Your task to perform on an android device: move an email to a new category in the gmail app Image 0: 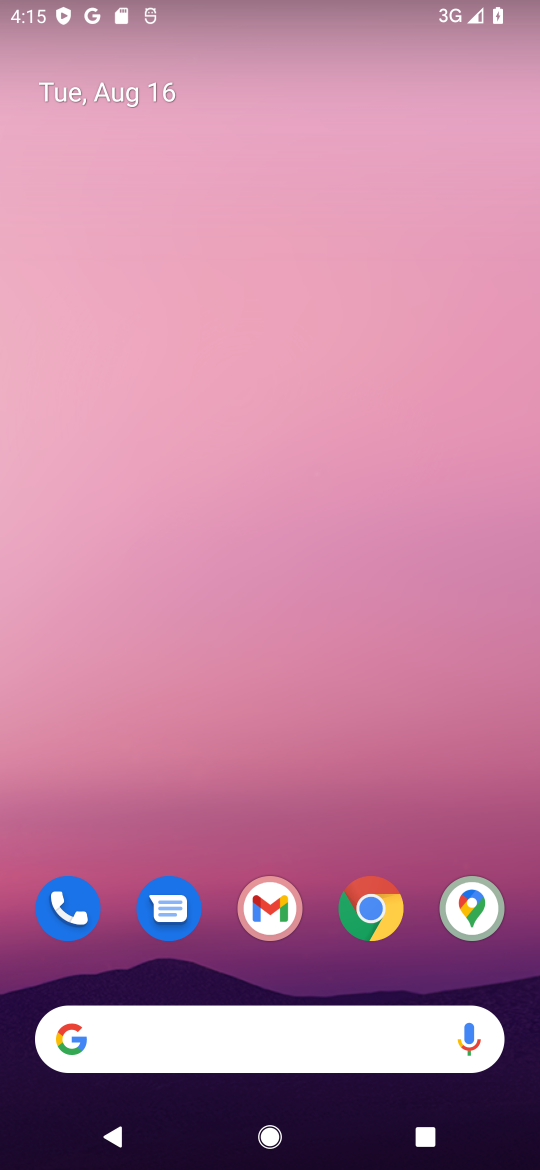
Step 0: click (268, 895)
Your task to perform on an android device: move an email to a new category in the gmail app Image 1: 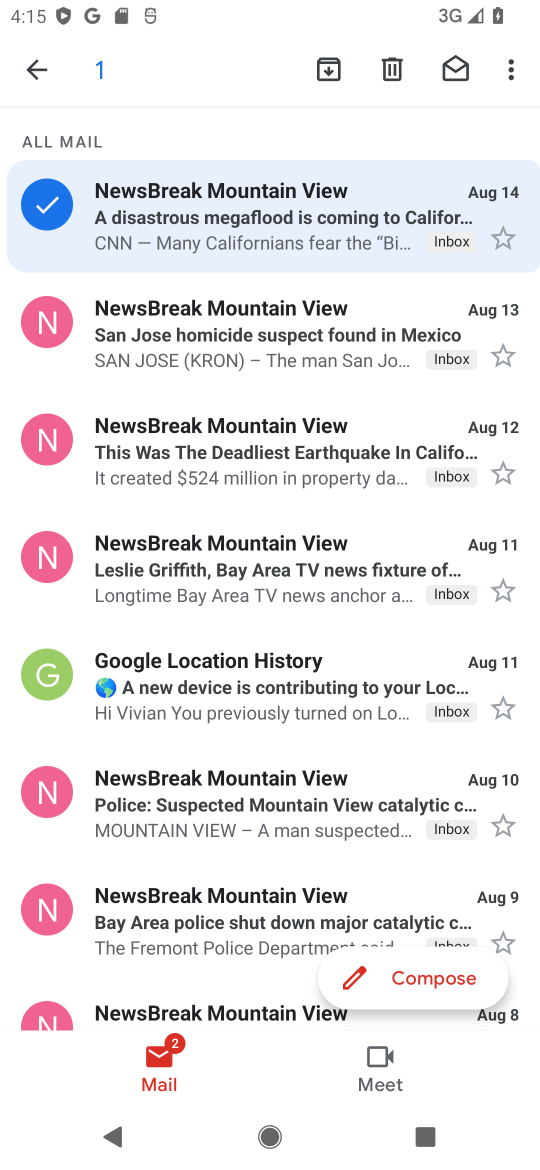
Step 1: click (515, 67)
Your task to perform on an android device: move an email to a new category in the gmail app Image 2: 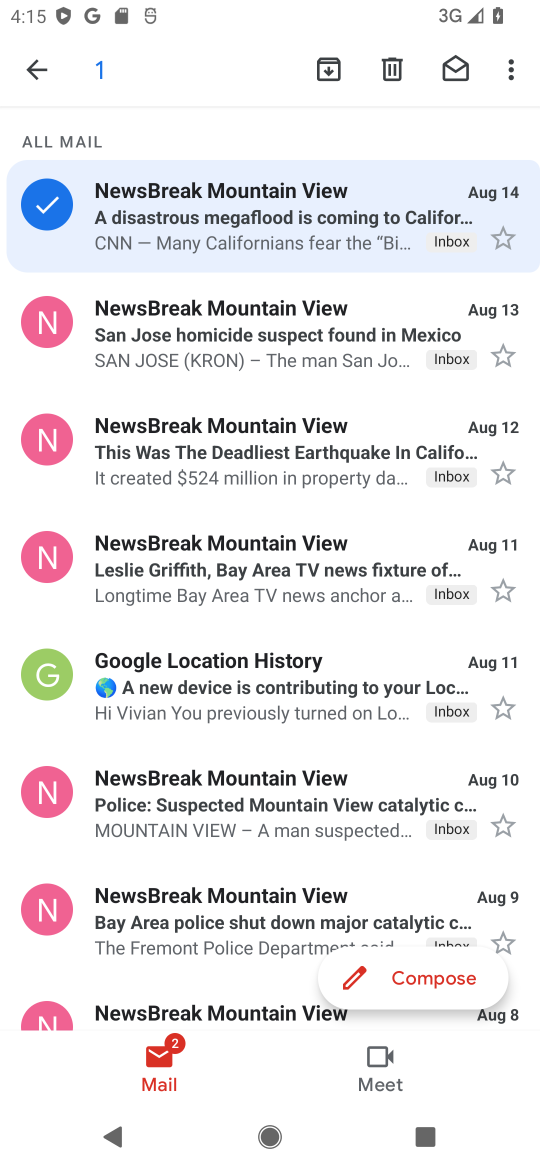
Step 2: click (64, 202)
Your task to perform on an android device: move an email to a new category in the gmail app Image 3: 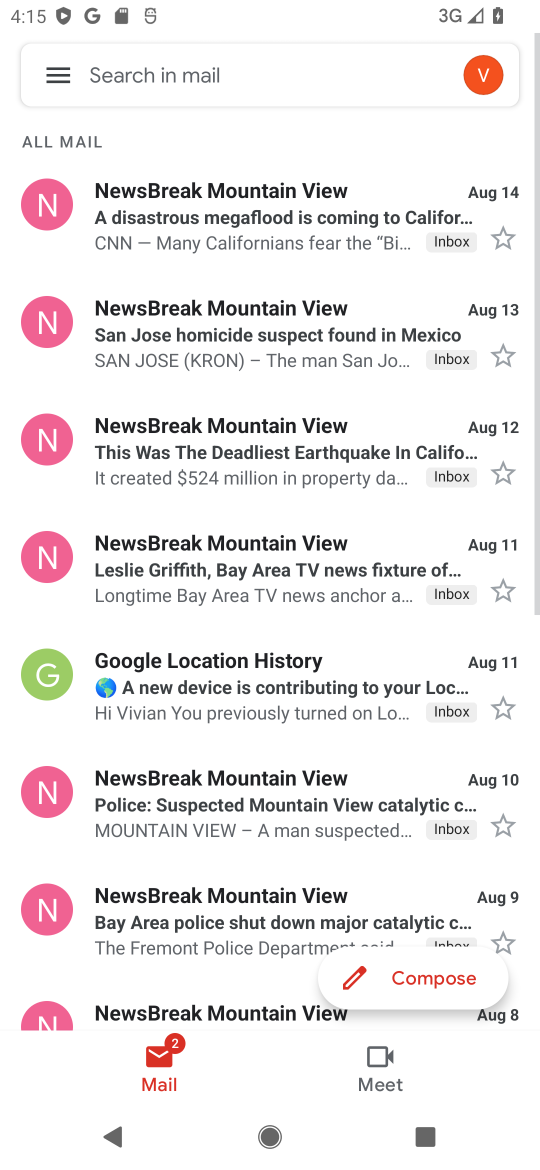
Step 3: drag from (172, 965) to (310, 159)
Your task to perform on an android device: move an email to a new category in the gmail app Image 4: 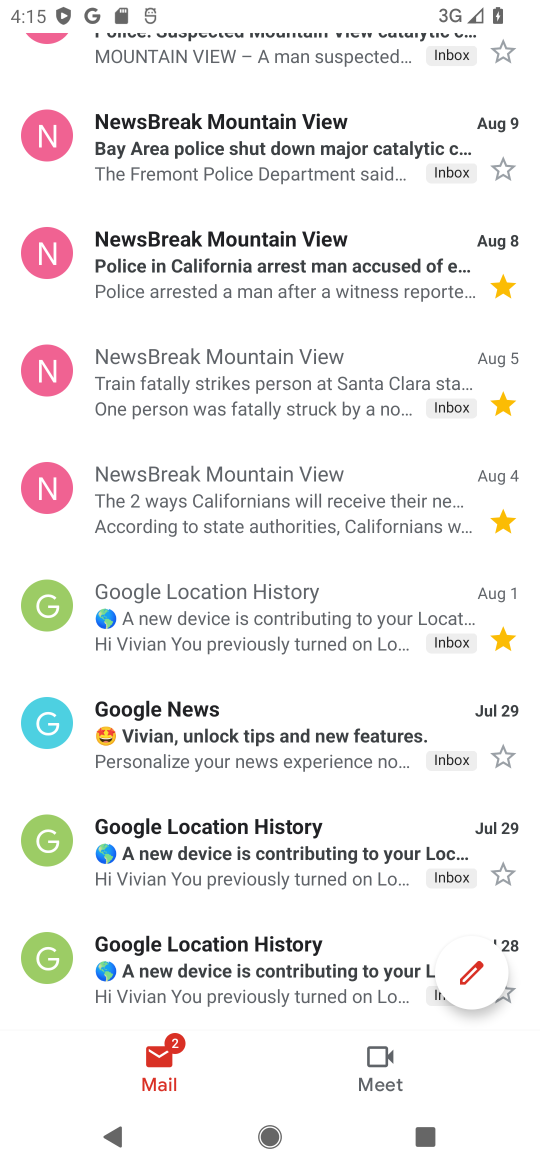
Step 4: click (288, 480)
Your task to perform on an android device: move an email to a new category in the gmail app Image 5: 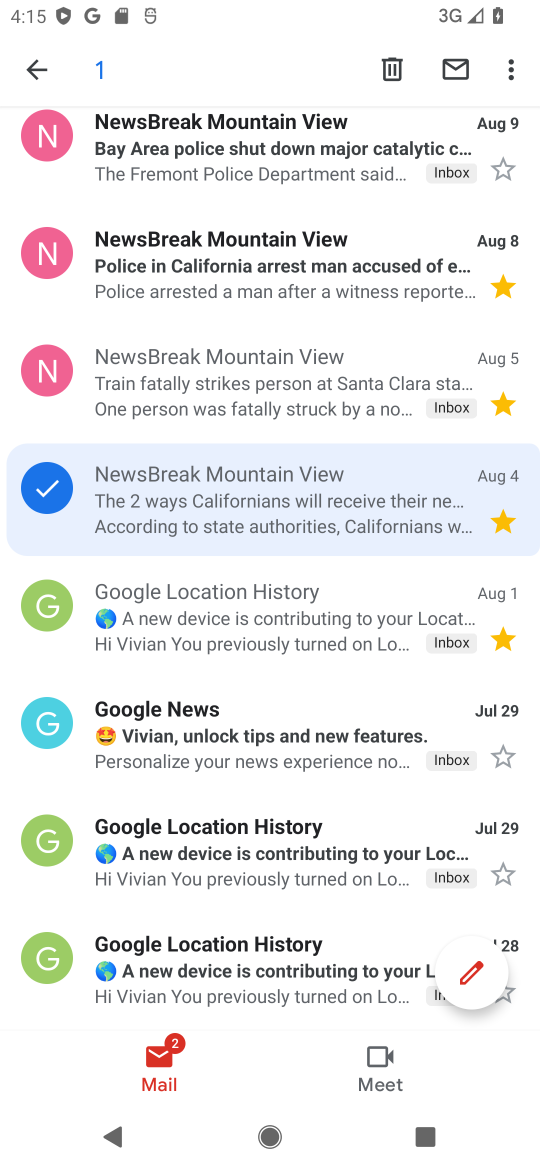
Step 5: click (500, 55)
Your task to perform on an android device: move an email to a new category in the gmail app Image 6: 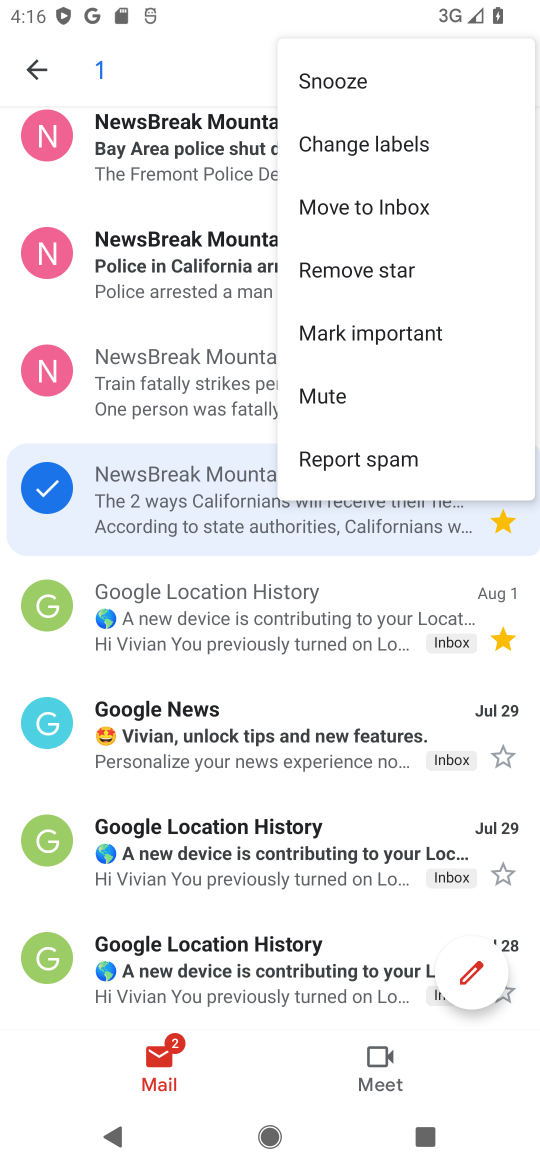
Step 6: click (407, 206)
Your task to perform on an android device: move an email to a new category in the gmail app Image 7: 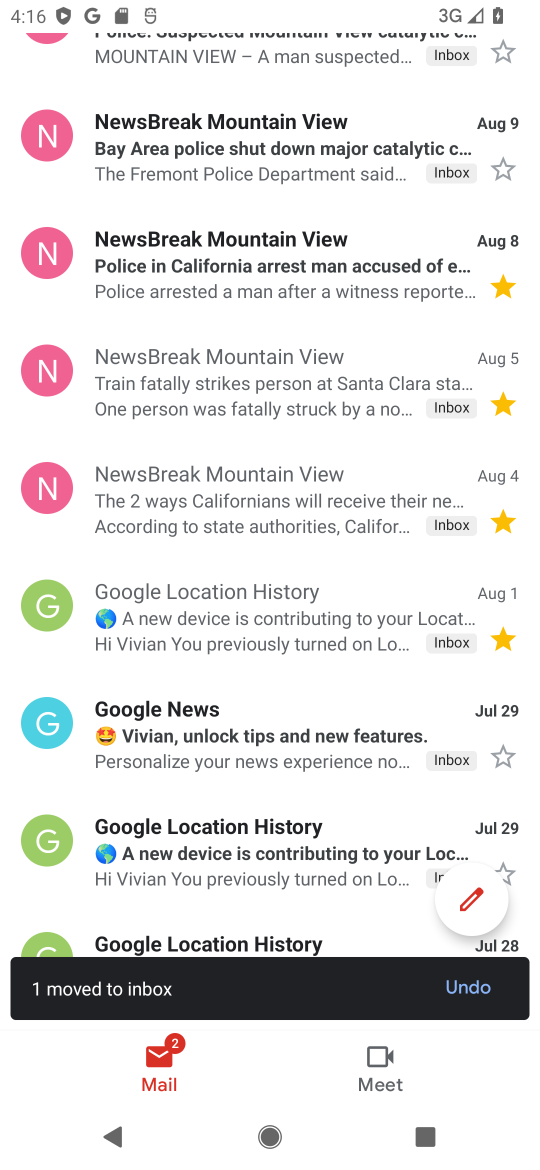
Step 7: task complete